Your task to perform on an android device: Go to privacy settings Image 0: 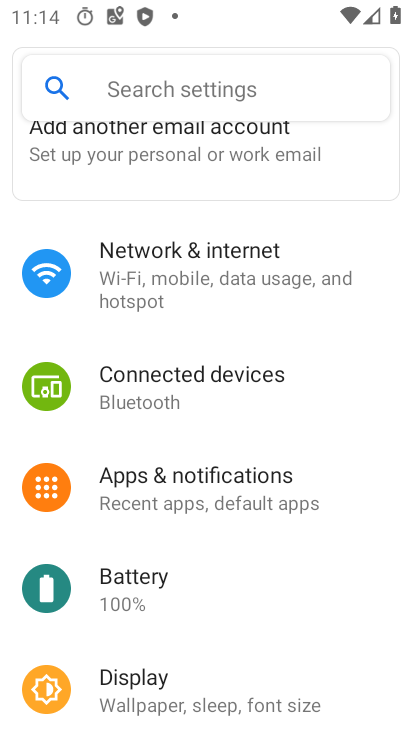
Step 0: drag from (182, 642) to (241, 332)
Your task to perform on an android device: Go to privacy settings Image 1: 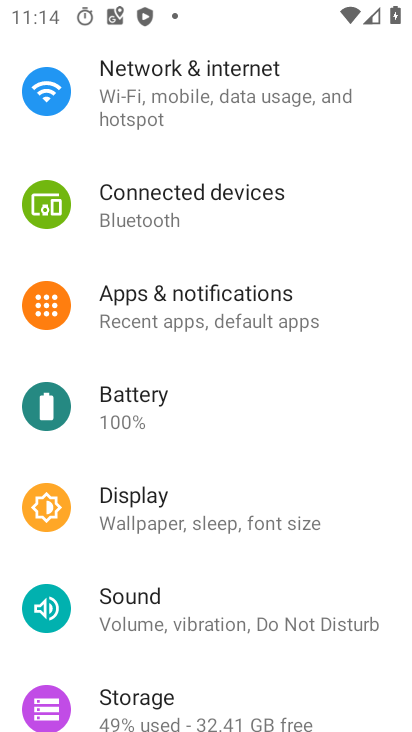
Step 1: drag from (206, 586) to (212, 365)
Your task to perform on an android device: Go to privacy settings Image 2: 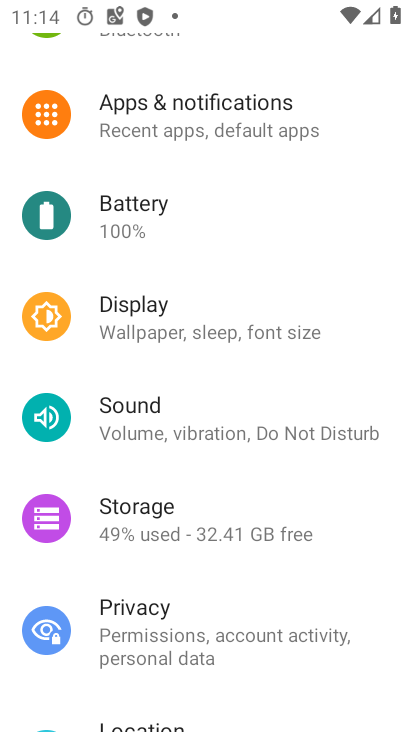
Step 2: click (228, 625)
Your task to perform on an android device: Go to privacy settings Image 3: 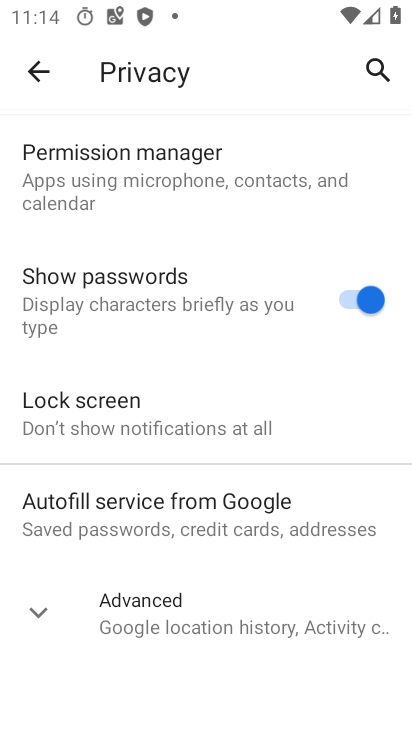
Step 3: task complete